Your task to perform on an android device: Open internet settings Image 0: 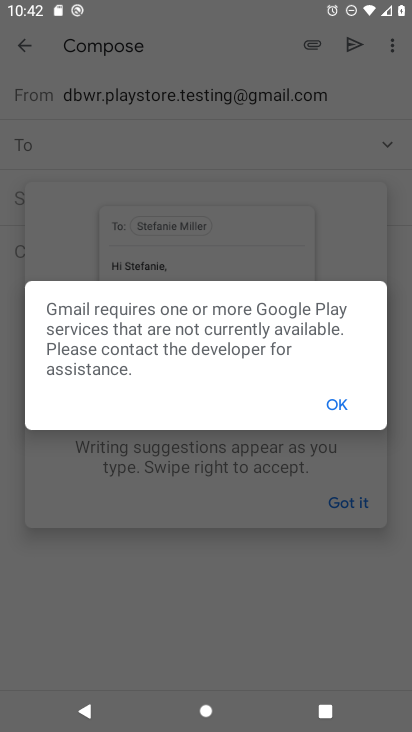
Step 0: press home button
Your task to perform on an android device: Open internet settings Image 1: 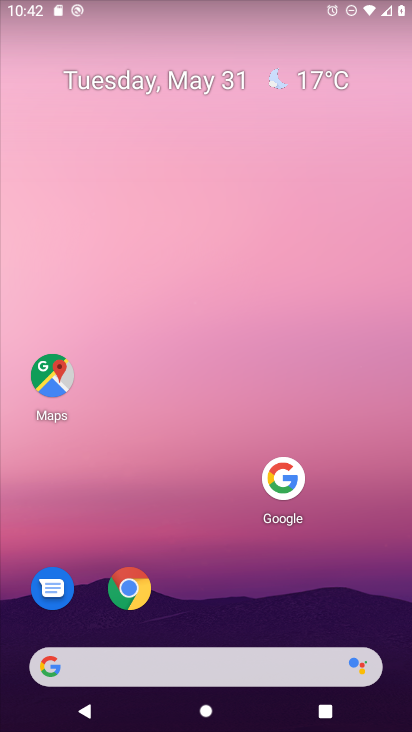
Step 1: drag from (198, 674) to (282, 123)
Your task to perform on an android device: Open internet settings Image 2: 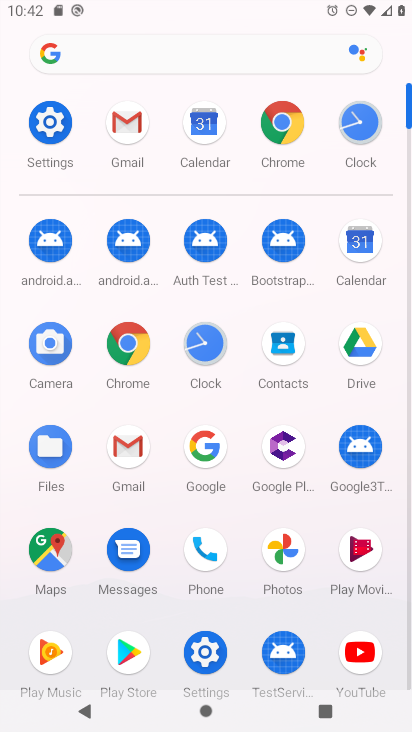
Step 2: click (54, 117)
Your task to perform on an android device: Open internet settings Image 3: 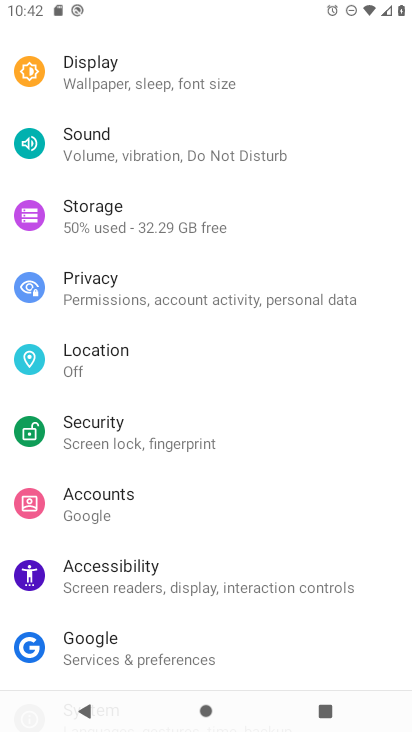
Step 3: drag from (308, 103) to (252, 494)
Your task to perform on an android device: Open internet settings Image 4: 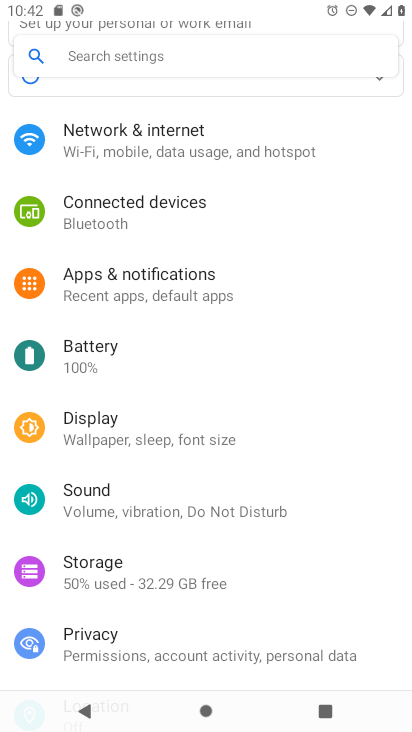
Step 4: click (159, 150)
Your task to perform on an android device: Open internet settings Image 5: 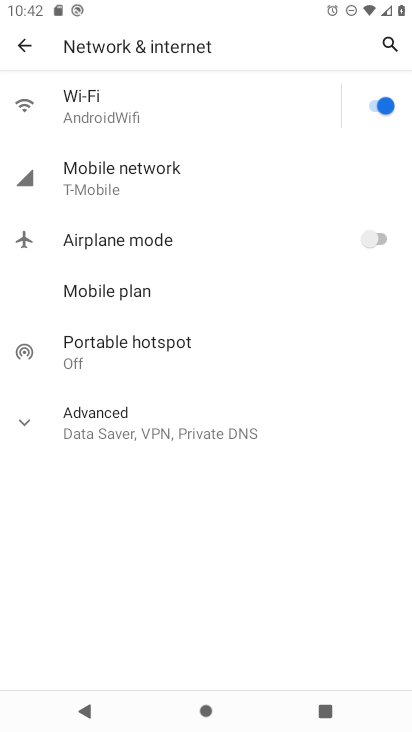
Step 5: task complete